Your task to perform on an android device: turn pop-ups on in chrome Image 0: 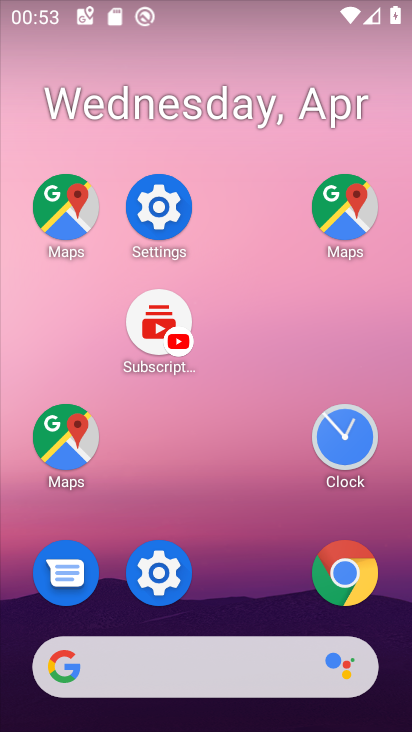
Step 0: drag from (113, 130) to (105, 83)
Your task to perform on an android device: turn pop-ups on in chrome Image 1: 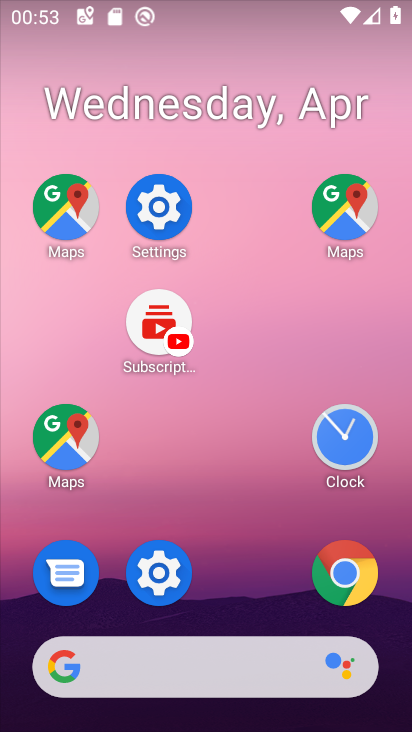
Step 1: drag from (304, 573) to (71, 90)
Your task to perform on an android device: turn pop-ups on in chrome Image 2: 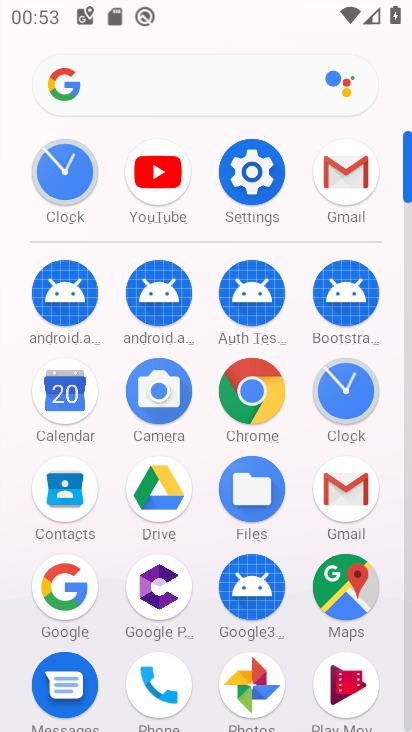
Step 2: click (255, 389)
Your task to perform on an android device: turn pop-ups on in chrome Image 3: 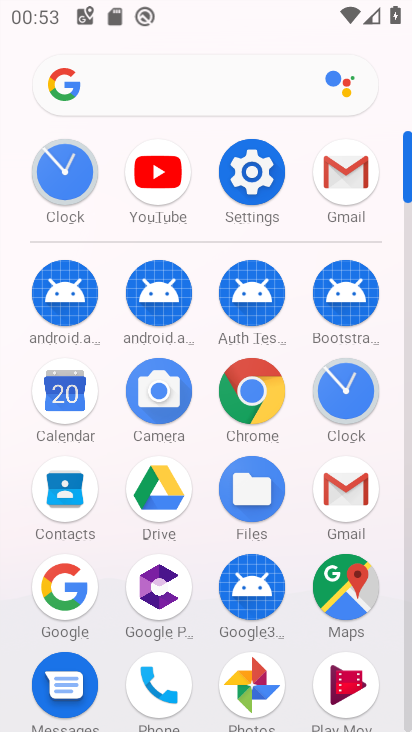
Step 3: click (255, 389)
Your task to perform on an android device: turn pop-ups on in chrome Image 4: 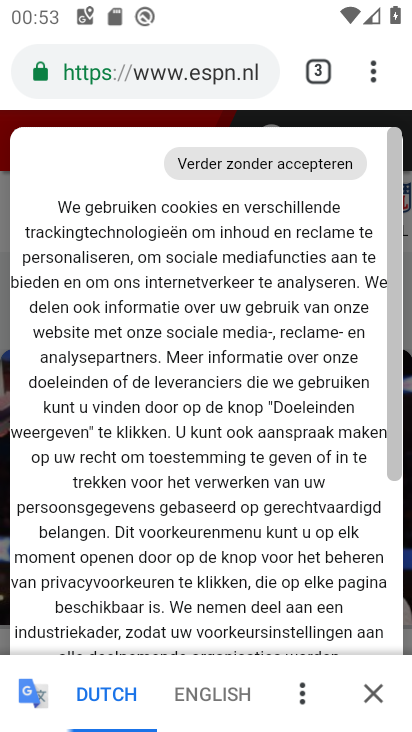
Step 4: click (375, 73)
Your task to perform on an android device: turn pop-ups on in chrome Image 5: 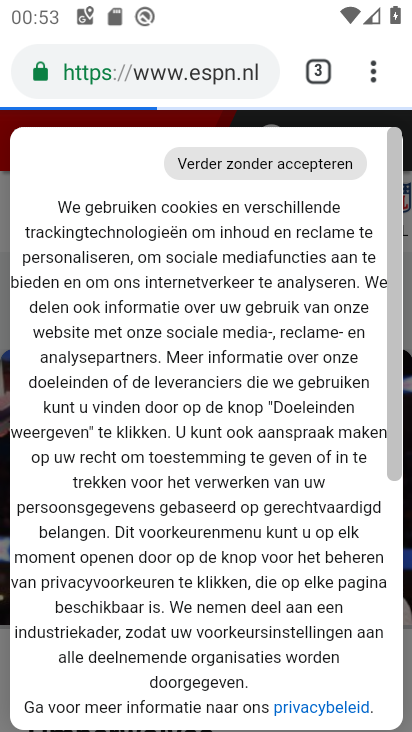
Step 5: click (375, 73)
Your task to perform on an android device: turn pop-ups on in chrome Image 6: 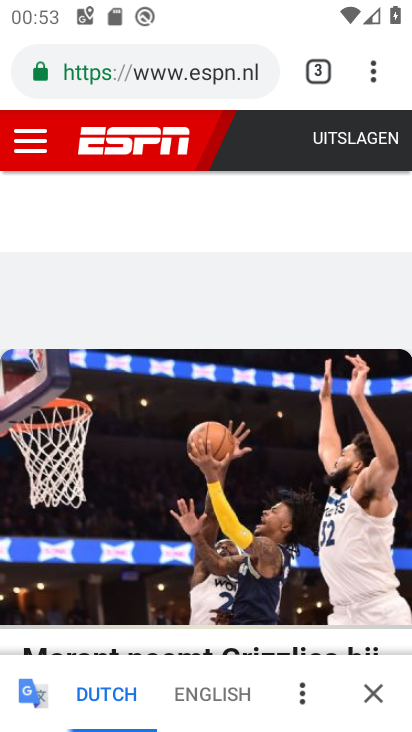
Step 6: click (375, 73)
Your task to perform on an android device: turn pop-ups on in chrome Image 7: 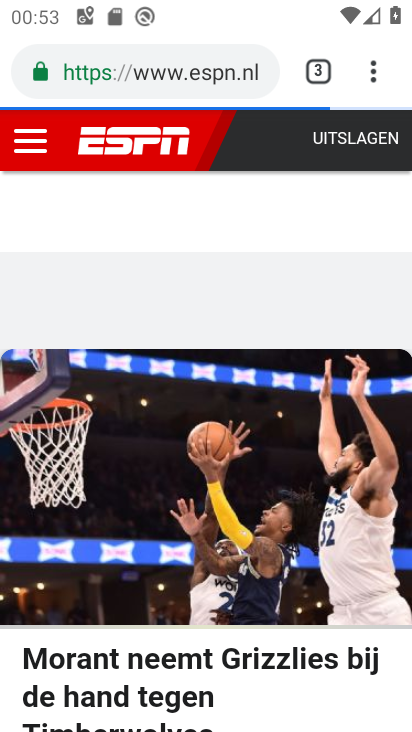
Step 7: drag from (369, 69) to (159, 613)
Your task to perform on an android device: turn pop-ups on in chrome Image 8: 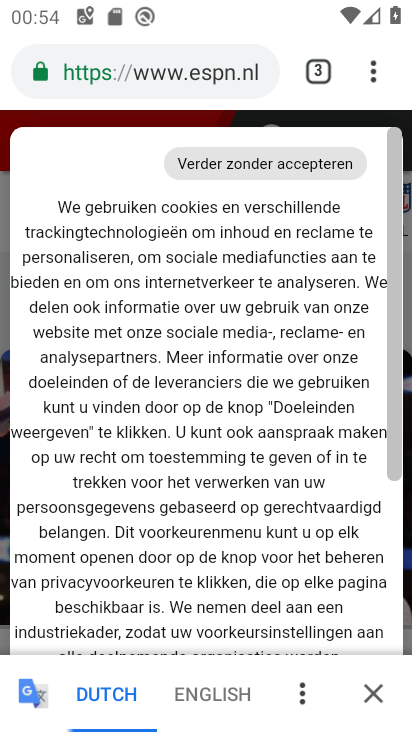
Step 8: click (105, 568)
Your task to perform on an android device: turn pop-ups on in chrome Image 9: 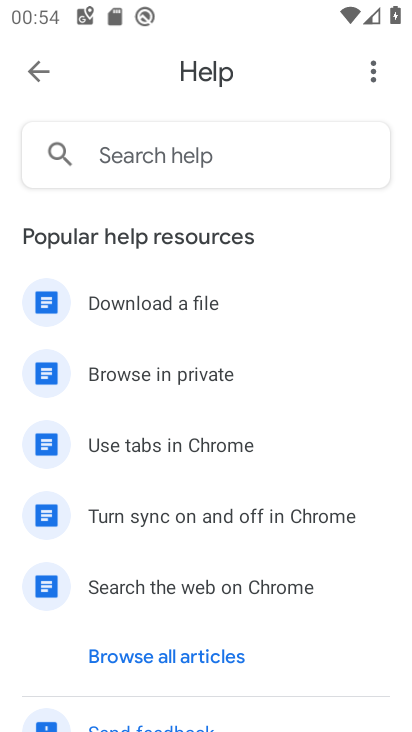
Step 9: click (363, 68)
Your task to perform on an android device: turn pop-ups on in chrome Image 10: 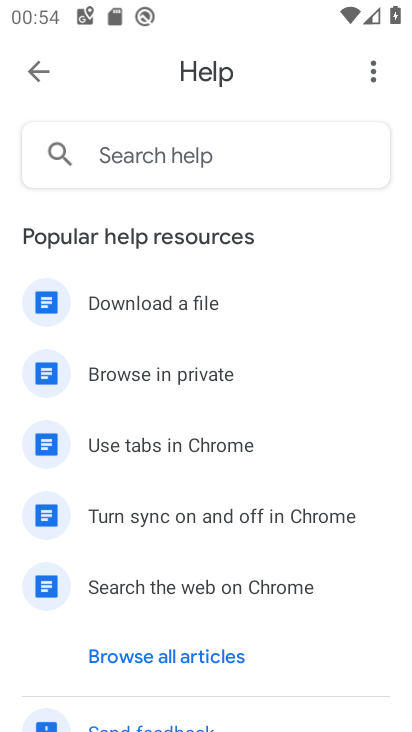
Step 10: click (32, 76)
Your task to perform on an android device: turn pop-ups on in chrome Image 11: 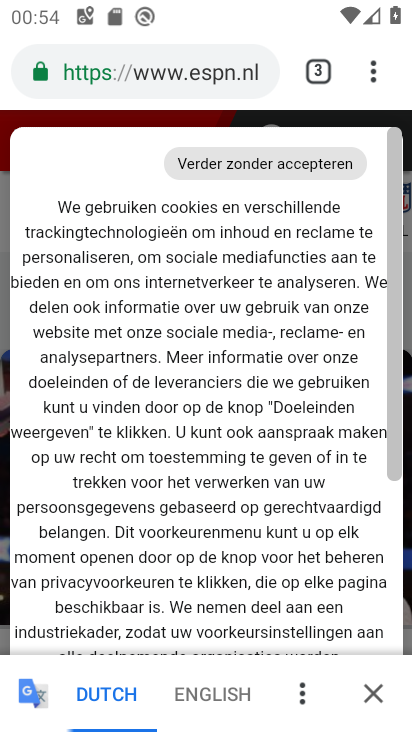
Step 11: click (363, 72)
Your task to perform on an android device: turn pop-ups on in chrome Image 12: 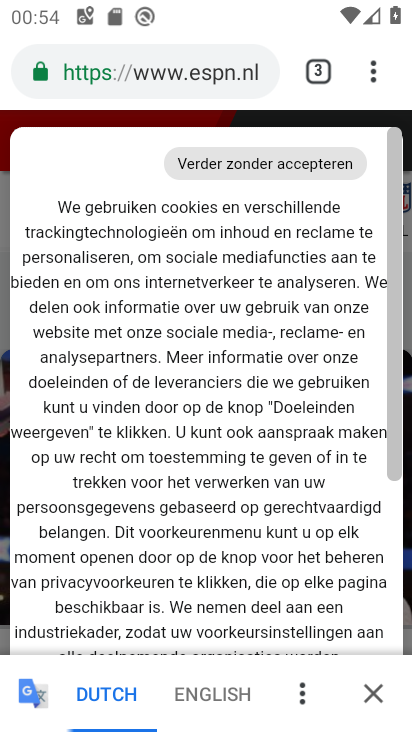
Step 12: click (369, 71)
Your task to perform on an android device: turn pop-ups on in chrome Image 13: 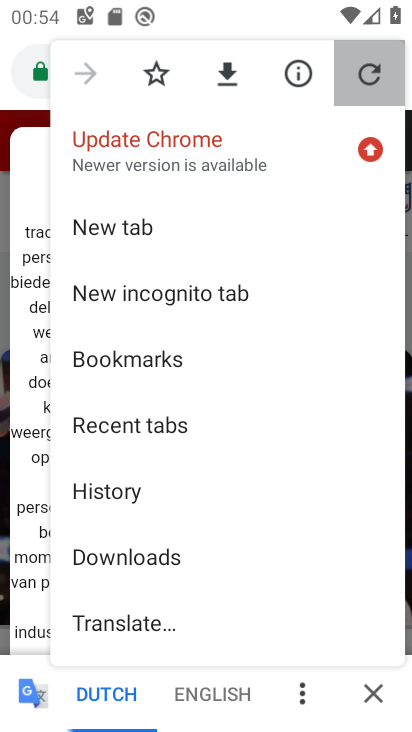
Step 13: click (369, 71)
Your task to perform on an android device: turn pop-ups on in chrome Image 14: 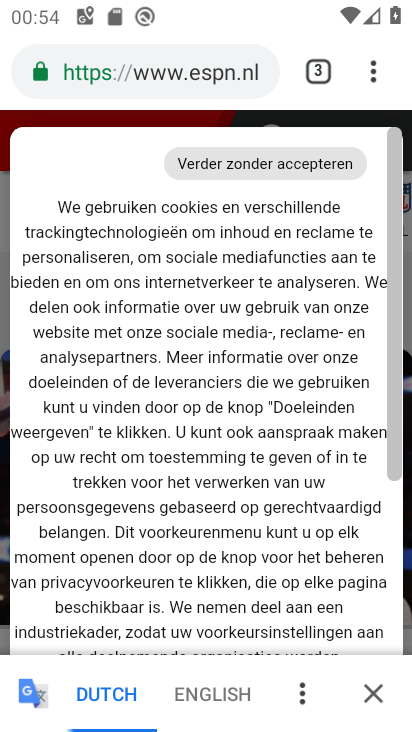
Step 14: click (369, 72)
Your task to perform on an android device: turn pop-ups on in chrome Image 15: 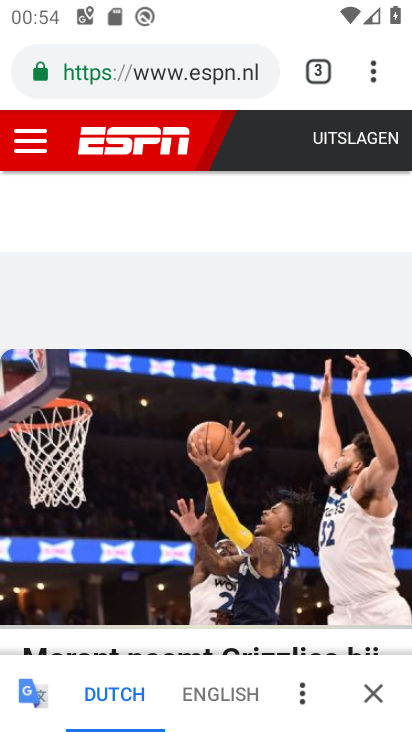
Step 15: drag from (372, 65) to (195, 246)
Your task to perform on an android device: turn pop-ups on in chrome Image 16: 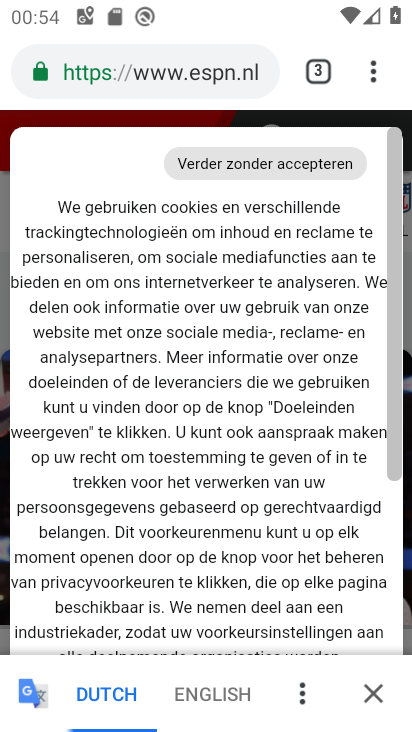
Step 16: click (368, 74)
Your task to perform on an android device: turn pop-ups on in chrome Image 17: 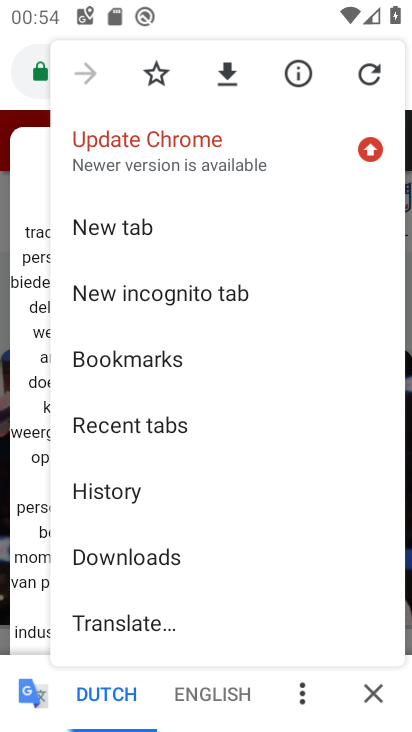
Step 17: drag from (126, 566) to (124, 205)
Your task to perform on an android device: turn pop-ups on in chrome Image 18: 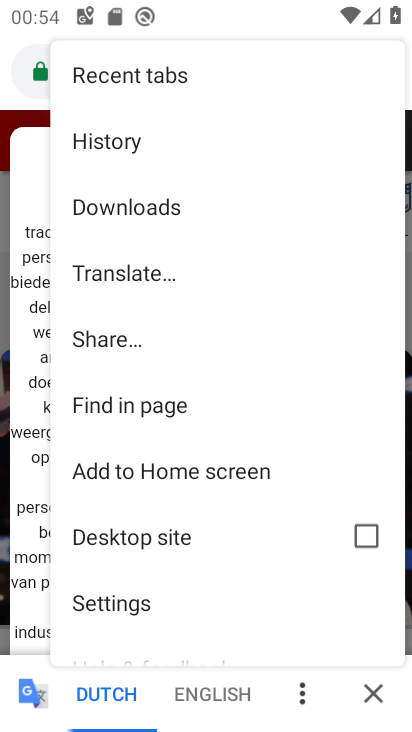
Step 18: click (123, 601)
Your task to perform on an android device: turn pop-ups on in chrome Image 19: 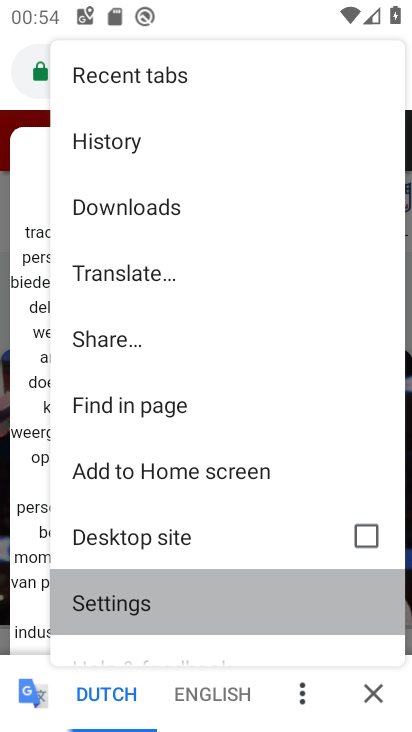
Step 19: click (108, 595)
Your task to perform on an android device: turn pop-ups on in chrome Image 20: 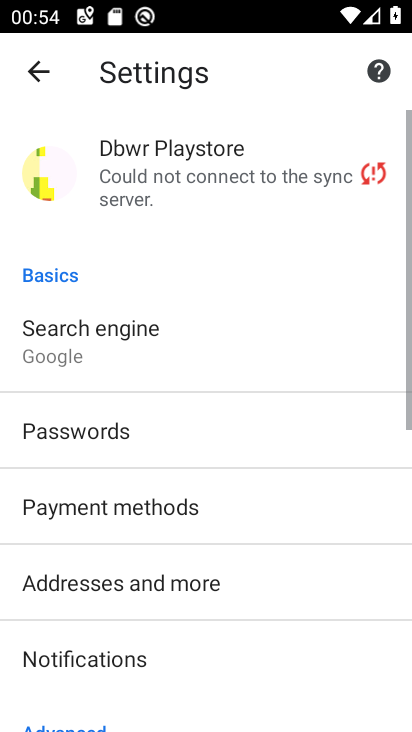
Step 20: drag from (159, 458) to (131, 166)
Your task to perform on an android device: turn pop-ups on in chrome Image 21: 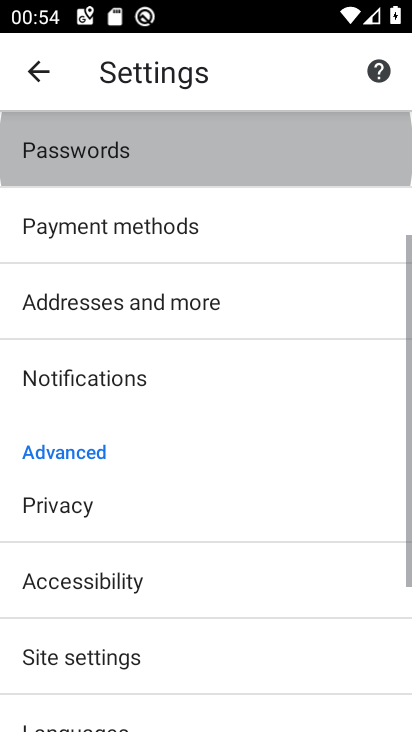
Step 21: drag from (185, 476) to (143, 175)
Your task to perform on an android device: turn pop-ups on in chrome Image 22: 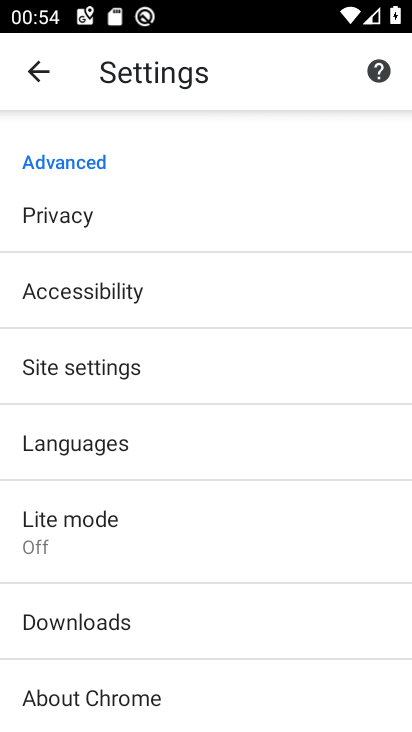
Step 22: click (75, 363)
Your task to perform on an android device: turn pop-ups on in chrome Image 23: 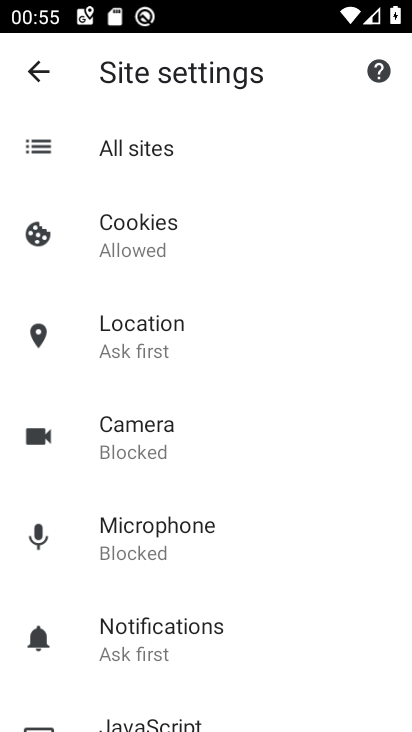
Step 23: drag from (228, 603) to (207, 122)
Your task to perform on an android device: turn pop-ups on in chrome Image 24: 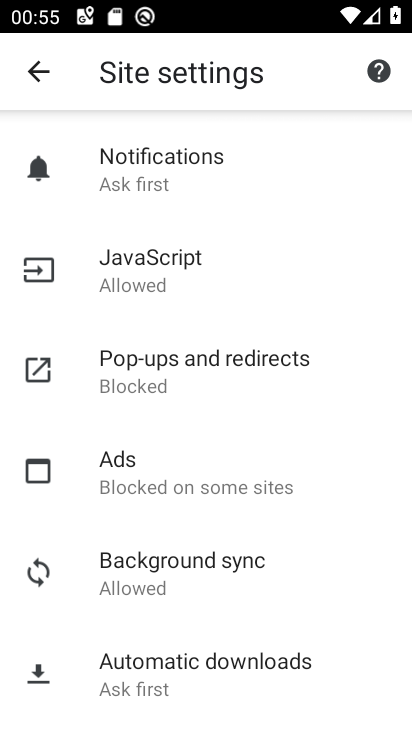
Step 24: click (154, 372)
Your task to perform on an android device: turn pop-ups on in chrome Image 25: 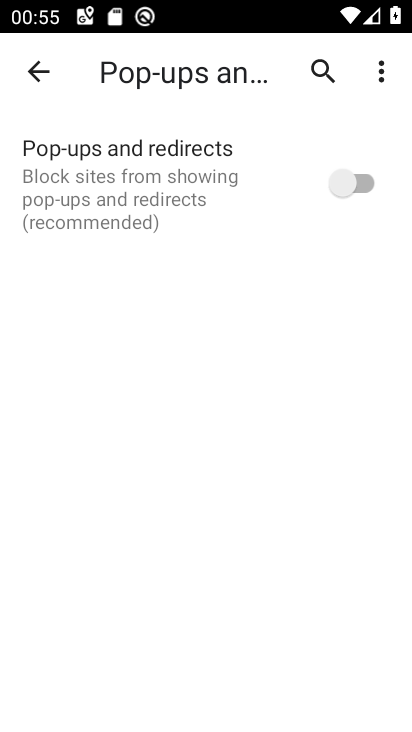
Step 25: click (341, 180)
Your task to perform on an android device: turn pop-ups on in chrome Image 26: 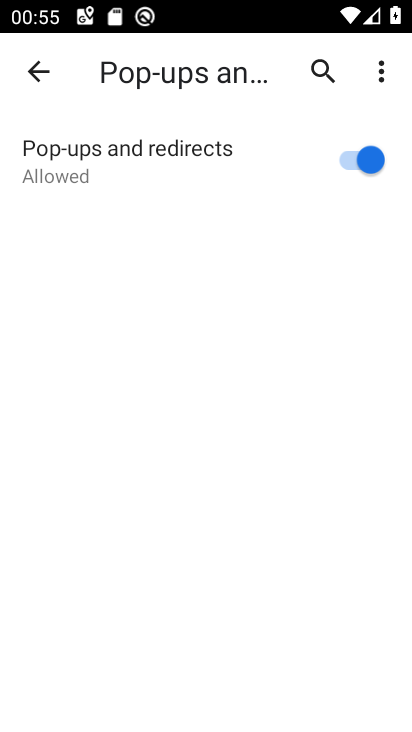
Step 26: task complete